Your task to perform on an android device: Open calendar and show me the third week of next month Image 0: 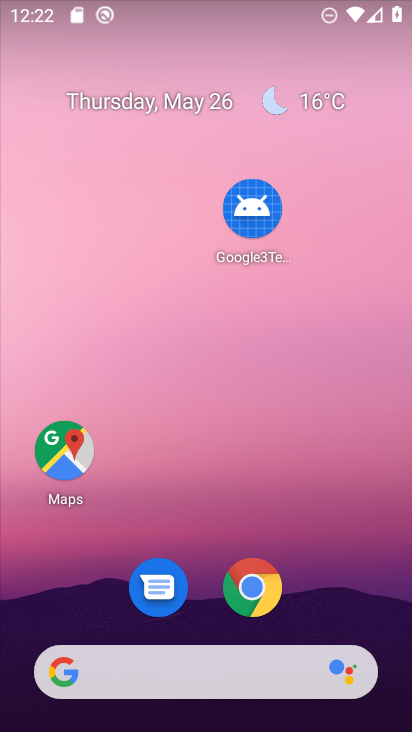
Step 0: drag from (232, 681) to (363, 196)
Your task to perform on an android device: Open calendar and show me the third week of next month Image 1: 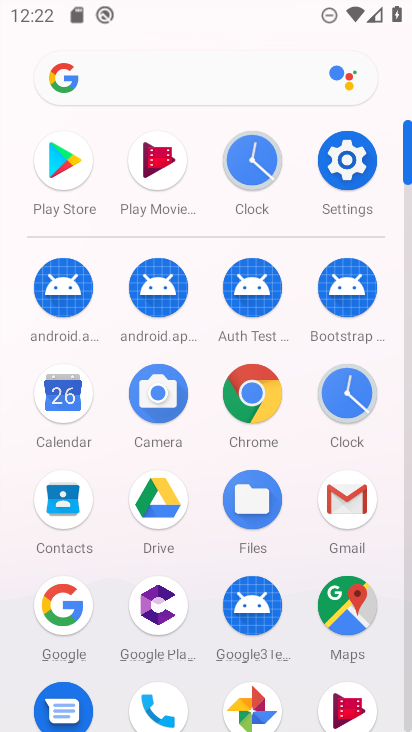
Step 1: click (81, 396)
Your task to perform on an android device: Open calendar and show me the third week of next month Image 2: 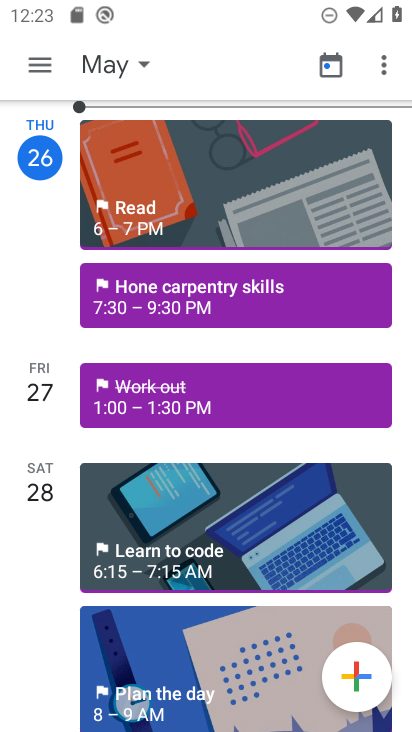
Step 2: click (29, 73)
Your task to perform on an android device: Open calendar and show me the third week of next month Image 3: 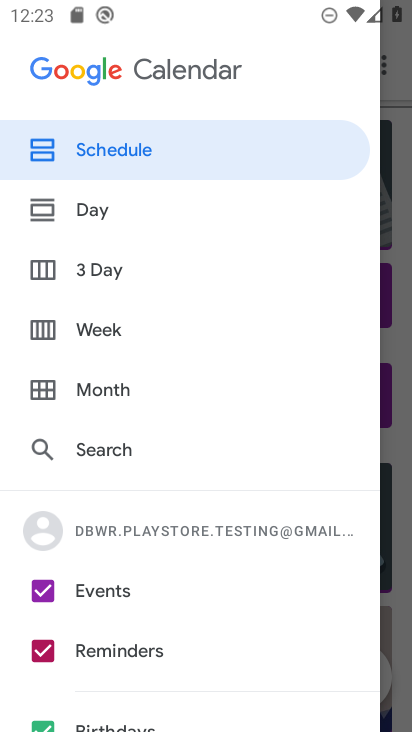
Step 3: click (172, 386)
Your task to perform on an android device: Open calendar and show me the third week of next month Image 4: 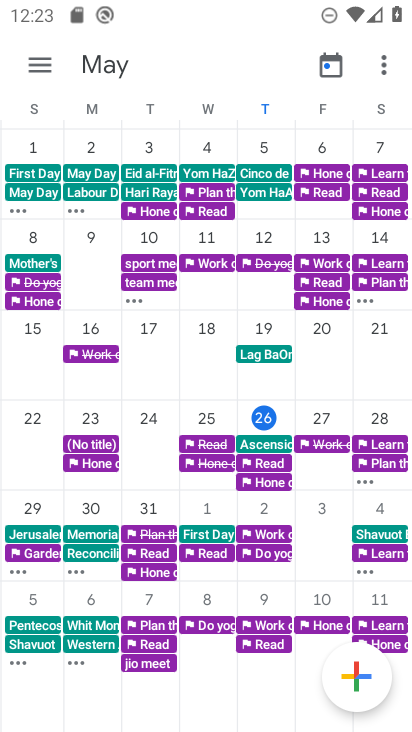
Step 4: task complete